Your task to perform on an android device: What's the weather going to be tomorrow? Image 0: 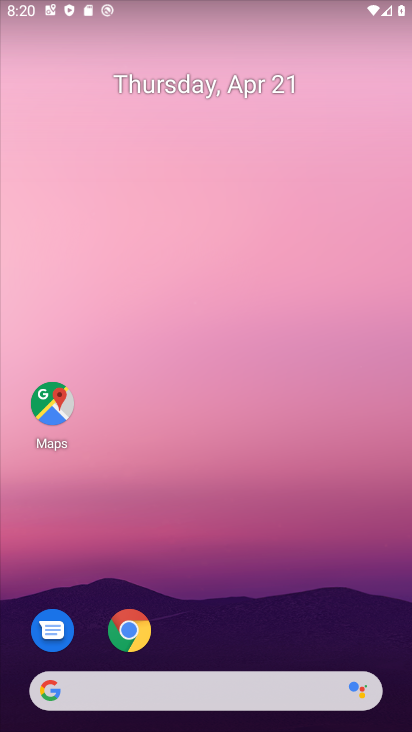
Step 0: drag from (1, 279) to (371, 255)
Your task to perform on an android device: What's the weather going to be tomorrow? Image 1: 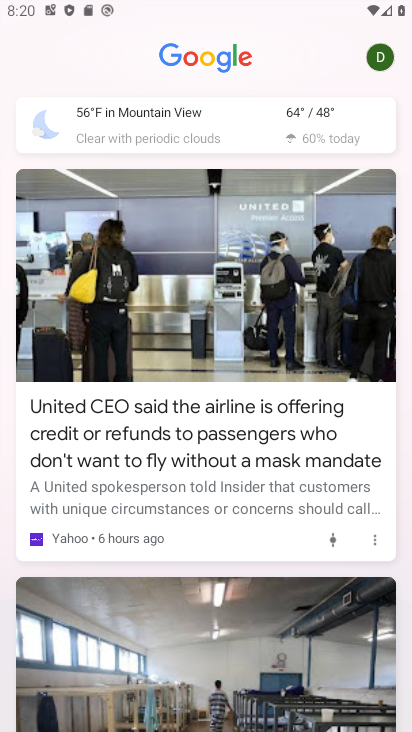
Step 1: click (257, 140)
Your task to perform on an android device: What's the weather going to be tomorrow? Image 2: 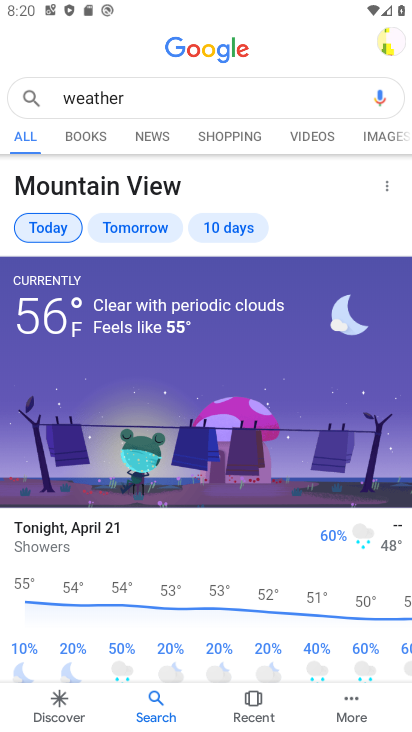
Step 2: click (146, 227)
Your task to perform on an android device: What's the weather going to be tomorrow? Image 3: 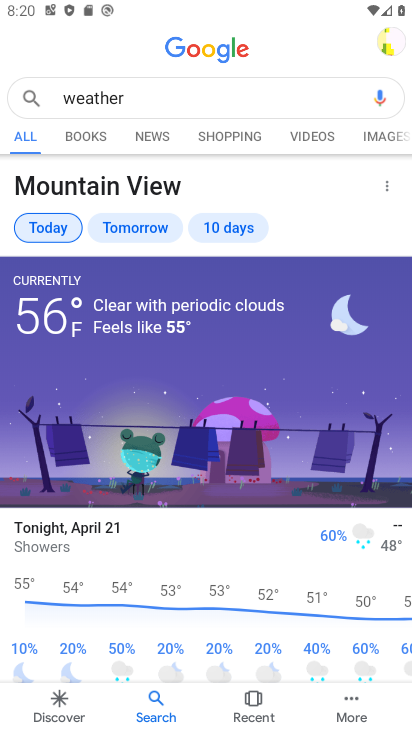
Step 3: click (146, 227)
Your task to perform on an android device: What's the weather going to be tomorrow? Image 4: 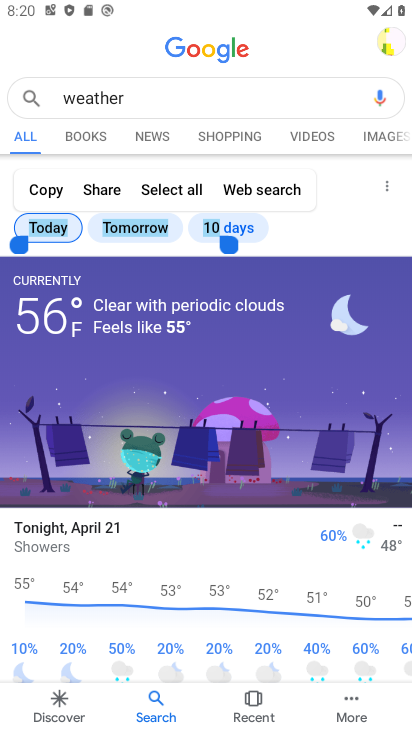
Step 4: click (153, 243)
Your task to perform on an android device: What's the weather going to be tomorrow? Image 5: 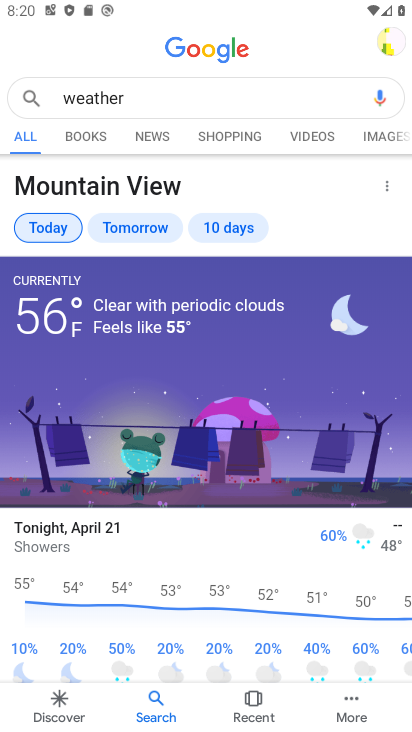
Step 5: click (151, 227)
Your task to perform on an android device: What's the weather going to be tomorrow? Image 6: 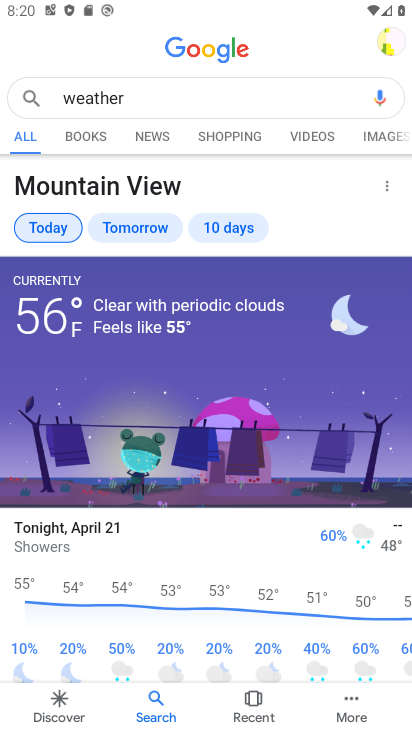
Step 6: drag from (150, 503) to (182, 356)
Your task to perform on an android device: What's the weather going to be tomorrow? Image 7: 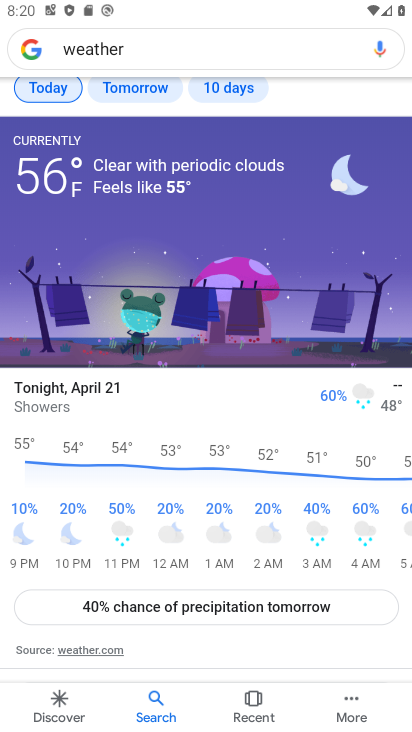
Step 7: drag from (217, 239) to (215, 403)
Your task to perform on an android device: What's the weather going to be tomorrow? Image 8: 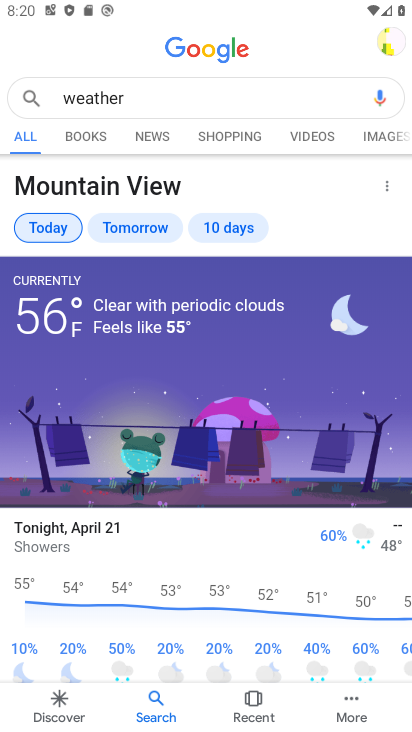
Step 8: click (160, 101)
Your task to perform on an android device: What's the weather going to be tomorrow? Image 9: 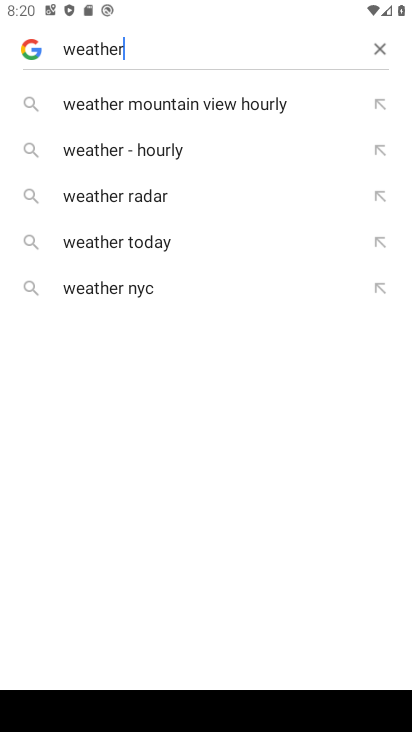
Step 9: type " tomorrow"
Your task to perform on an android device: What's the weather going to be tomorrow? Image 10: 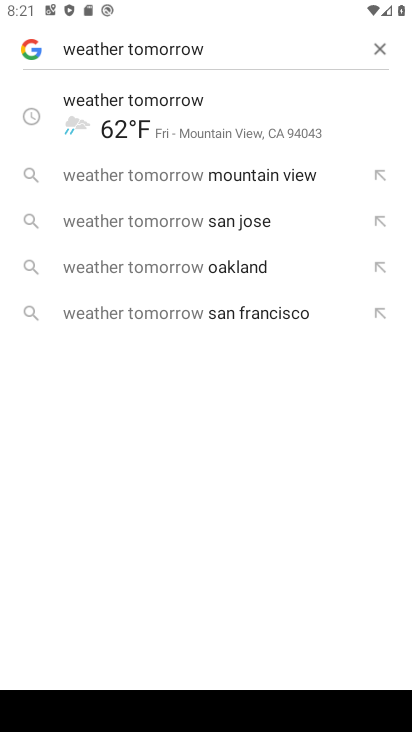
Step 10: click (187, 117)
Your task to perform on an android device: What's the weather going to be tomorrow? Image 11: 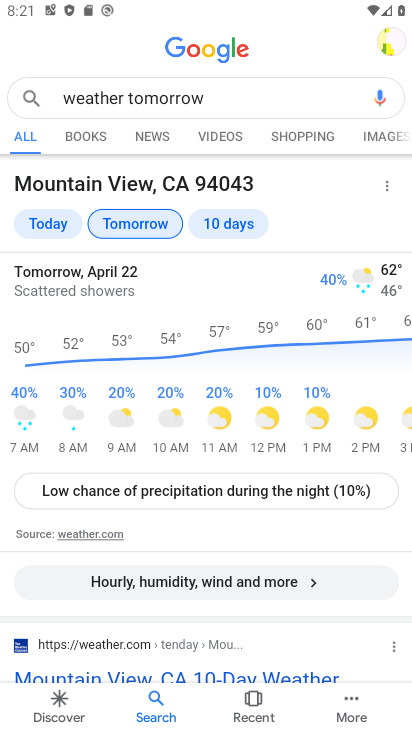
Step 11: task complete